Your task to perform on an android device: turn off sleep mode Image 0: 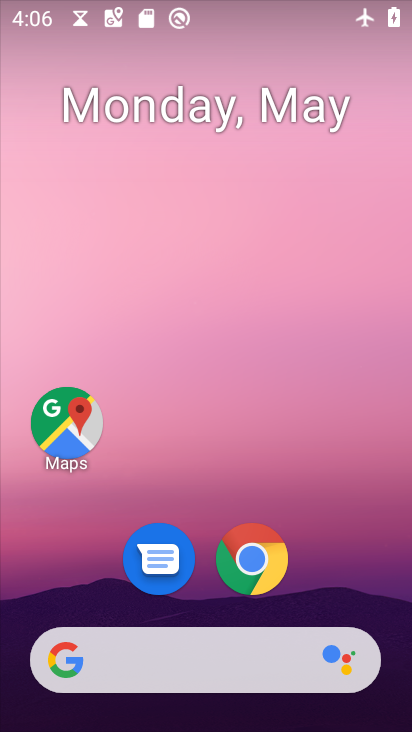
Step 0: drag from (308, 627) to (281, 287)
Your task to perform on an android device: turn off sleep mode Image 1: 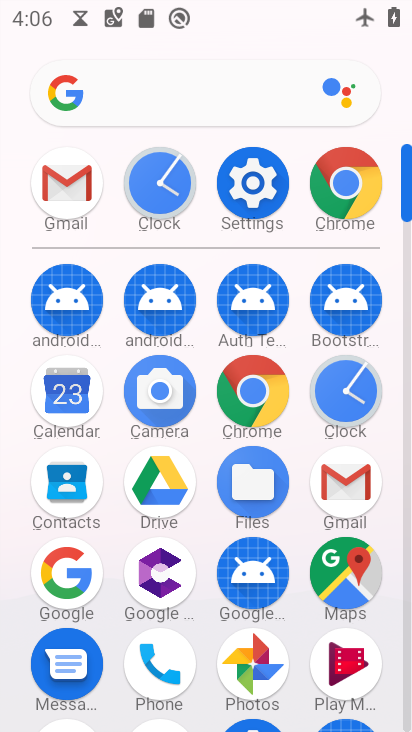
Step 1: task complete